Your task to perform on an android device: find which apps use the phone's location Image 0: 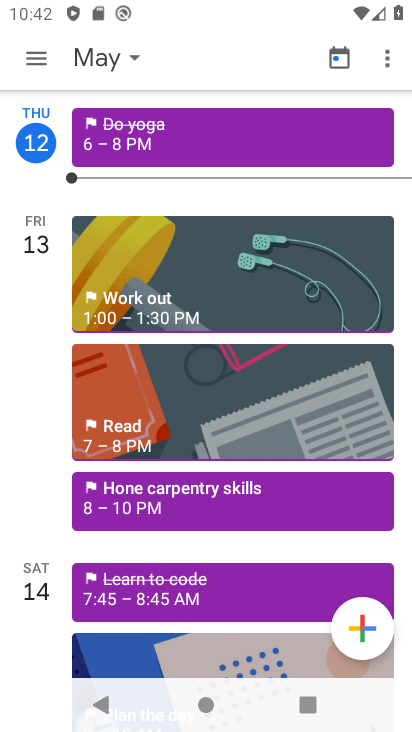
Step 0: press home button
Your task to perform on an android device: find which apps use the phone's location Image 1: 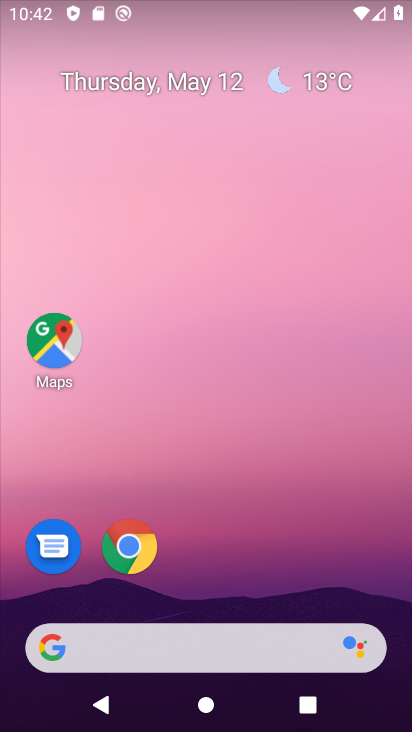
Step 1: drag from (259, 676) to (193, 401)
Your task to perform on an android device: find which apps use the phone's location Image 2: 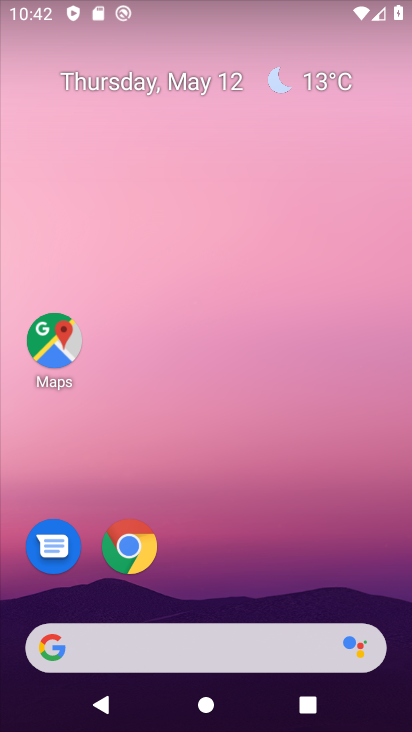
Step 2: drag from (150, 667) to (302, 248)
Your task to perform on an android device: find which apps use the phone's location Image 3: 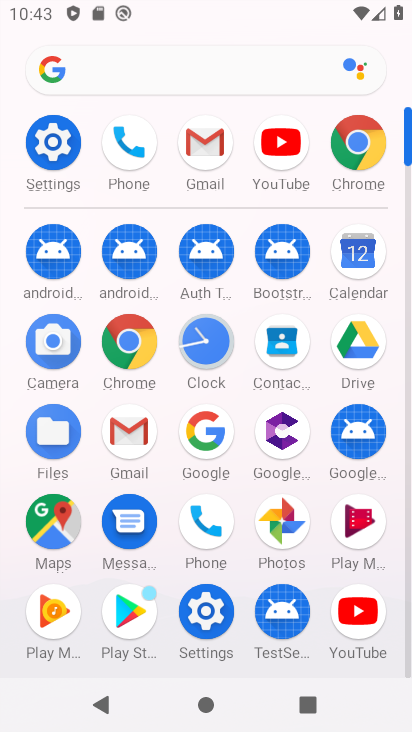
Step 3: click (214, 612)
Your task to perform on an android device: find which apps use the phone's location Image 4: 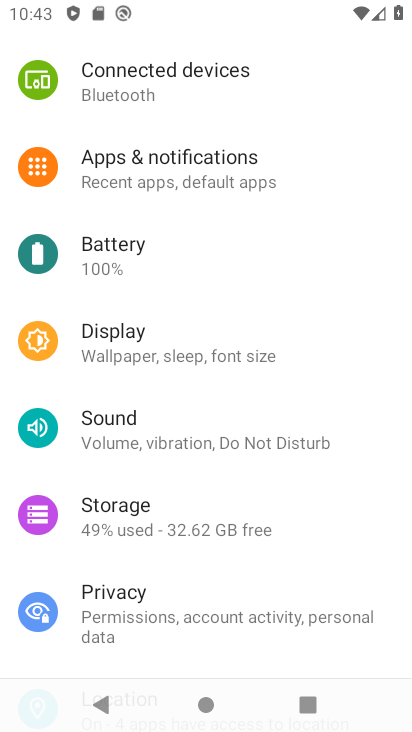
Step 4: drag from (202, 277) to (159, 550)
Your task to perform on an android device: find which apps use the phone's location Image 5: 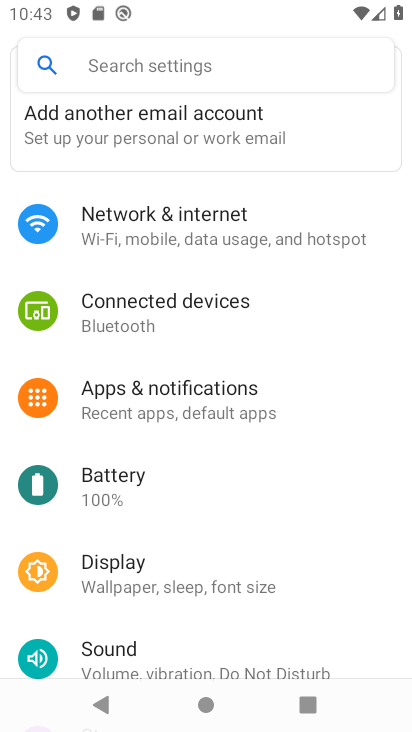
Step 5: click (156, 80)
Your task to perform on an android device: find which apps use the phone's location Image 6: 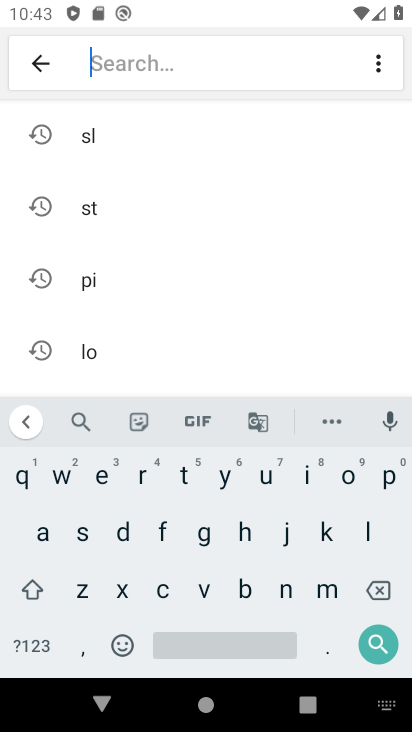
Step 6: click (120, 352)
Your task to perform on an android device: find which apps use the phone's location Image 7: 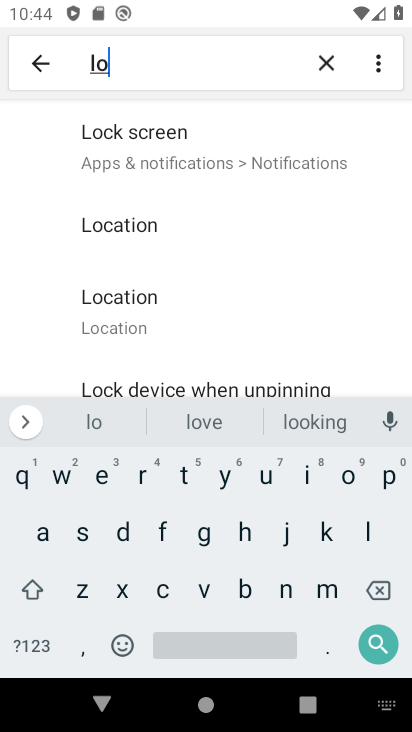
Step 7: click (162, 303)
Your task to perform on an android device: find which apps use the phone's location Image 8: 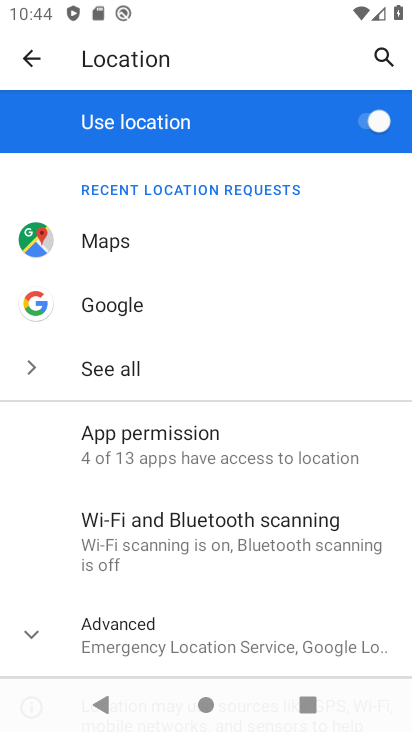
Step 8: task complete